Your task to perform on an android device: Open Android settings Image 0: 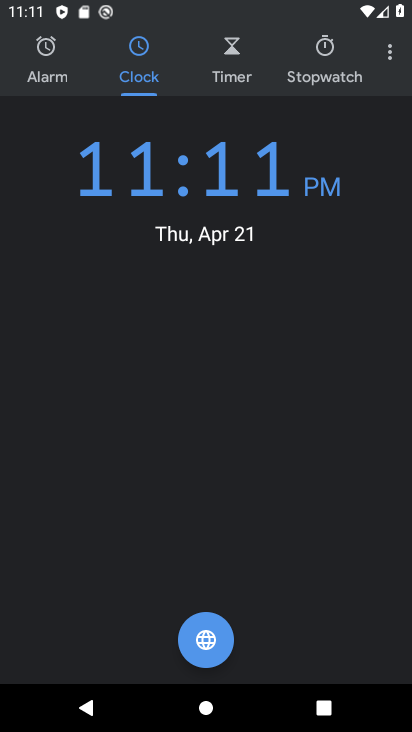
Step 0: press home button
Your task to perform on an android device: Open Android settings Image 1: 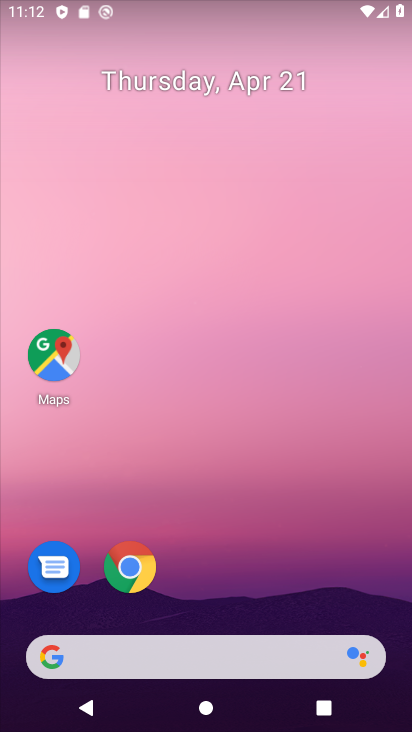
Step 1: drag from (374, 540) to (359, 104)
Your task to perform on an android device: Open Android settings Image 2: 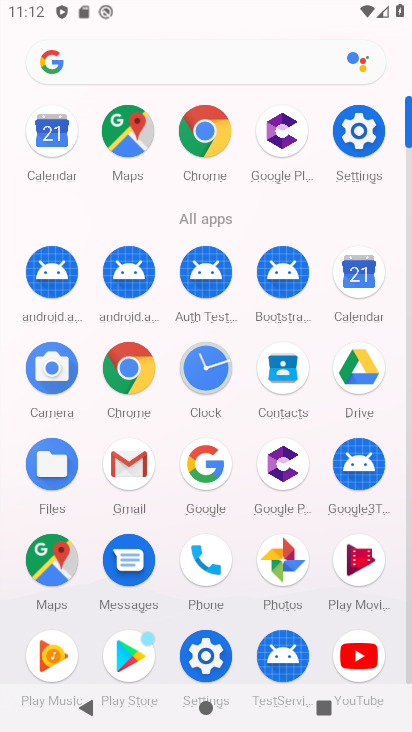
Step 2: click (211, 660)
Your task to perform on an android device: Open Android settings Image 3: 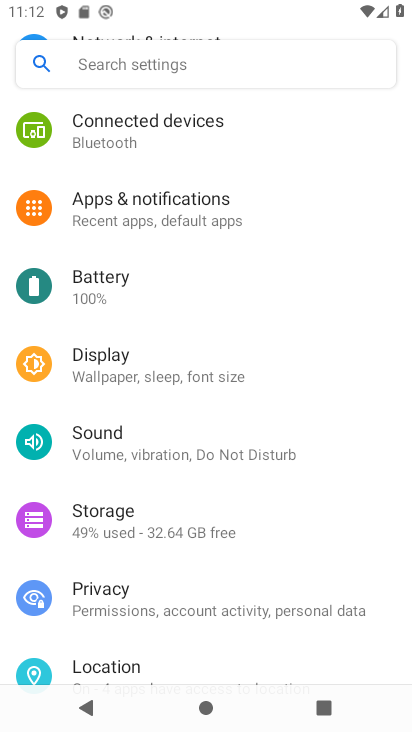
Step 3: task complete